Your task to perform on an android device: open chrome and create a bookmark for the current page Image 0: 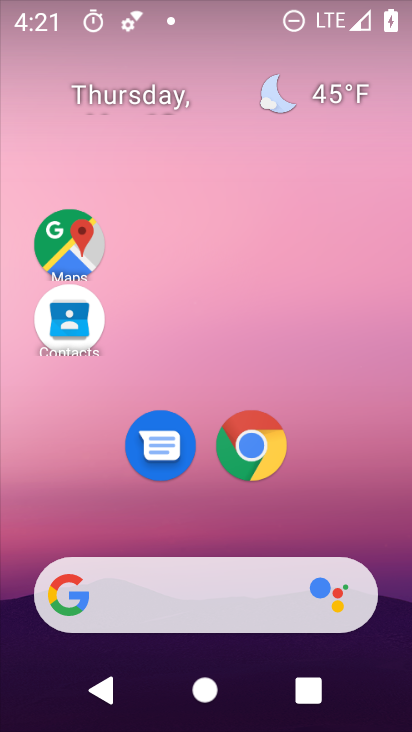
Step 0: click (255, 444)
Your task to perform on an android device: open chrome and create a bookmark for the current page Image 1: 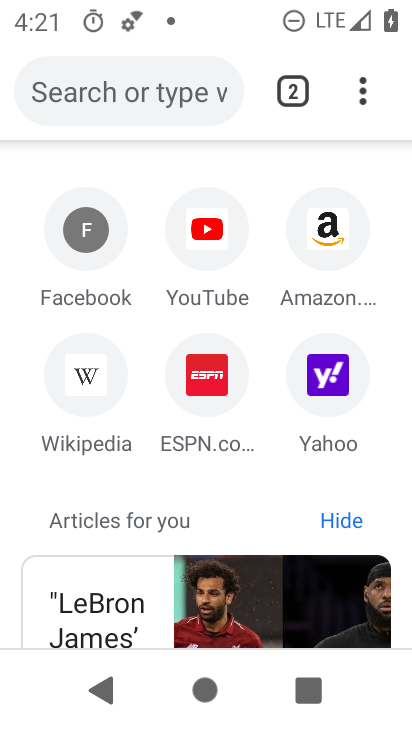
Step 1: click (366, 84)
Your task to perform on an android device: open chrome and create a bookmark for the current page Image 2: 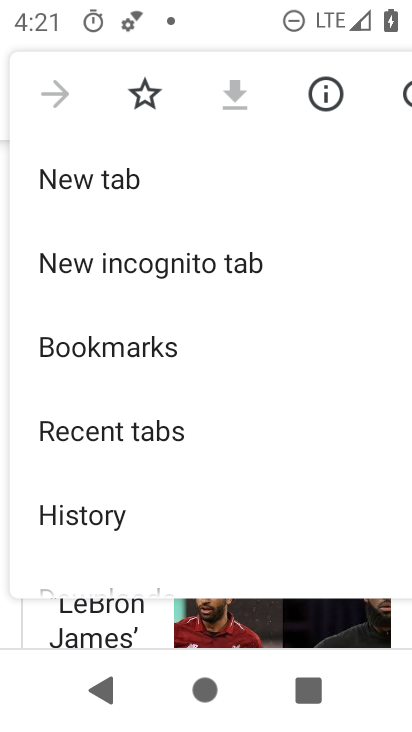
Step 2: click (152, 99)
Your task to perform on an android device: open chrome and create a bookmark for the current page Image 3: 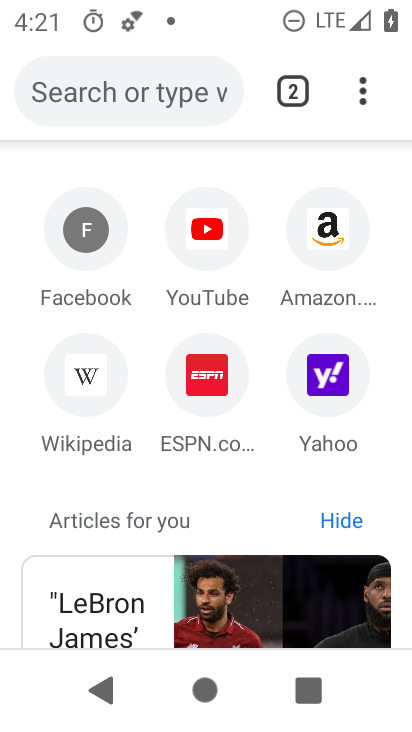
Step 3: task complete